Your task to perform on an android device: turn off priority inbox in the gmail app Image 0: 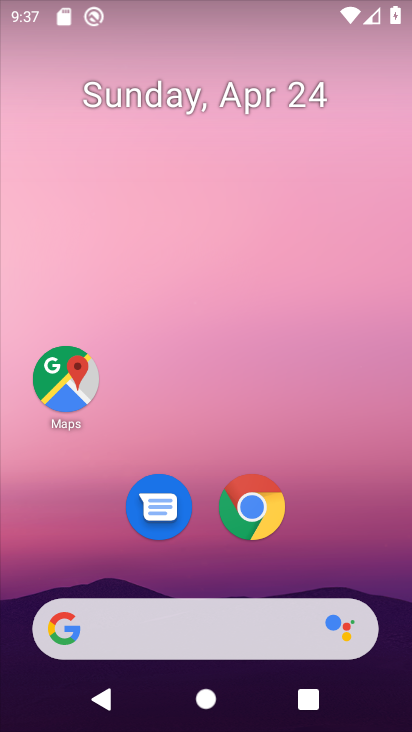
Step 0: drag from (147, 595) to (262, 57)
Your task to perform on an android device: turn off priority inbox in the gmail app Image 1: 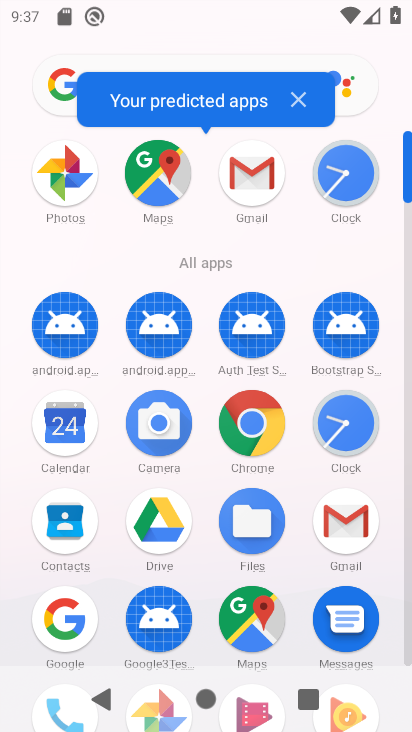
Step 1: click (247, 183)
Your task to perform on an android device: turn off priority inbox in the gmail app Image 2: 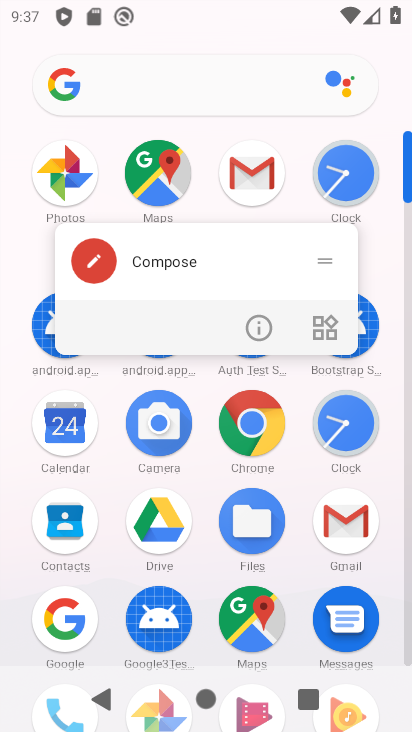
Step 2: click (272, 180)
Your task to perform on an android device: turn off priority inbox in the gmail app Image 3: 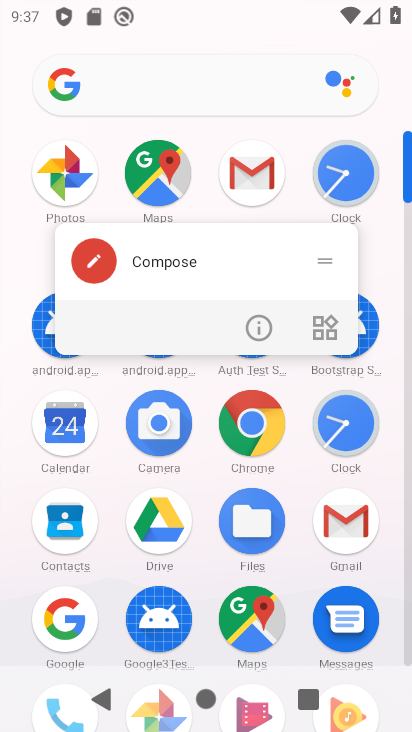
Step 3: click (272, 180)
Your task to perform on an android device: turn off priority inbox in the gmail app Image 4: 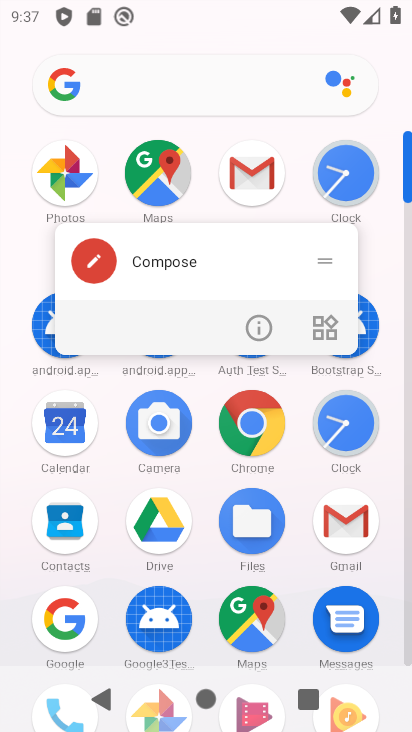
Step 4: click (272, 180)
Your task to perform on an android device: turn off priority inbox in the gmail app Image 5: 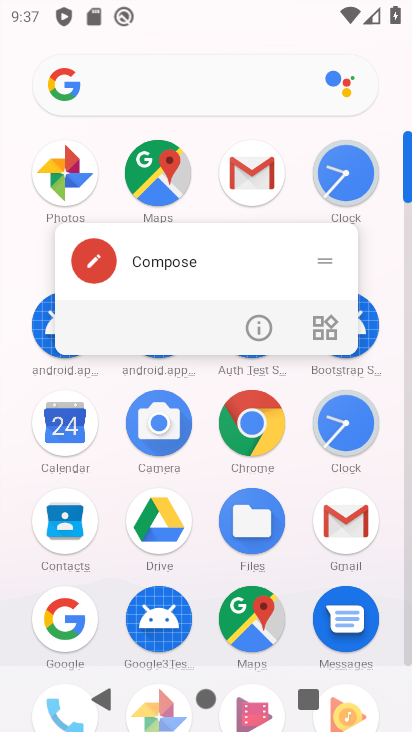
Step 5: click (258, 175)
Your task to perform on an android device: turn off priority inbox in the gmail app Image 6: 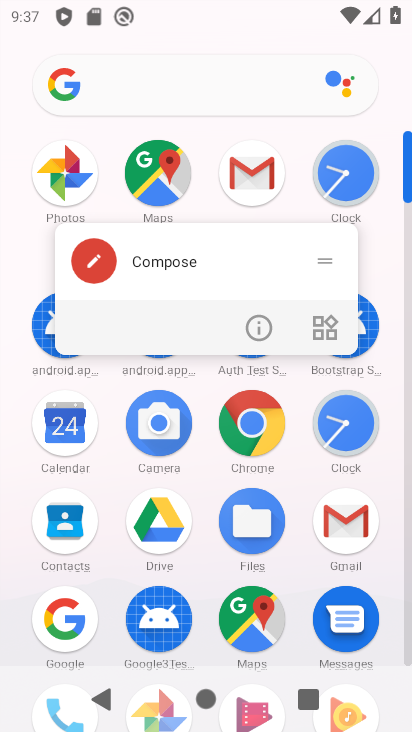
Step 6: click (258, 173)
Your task to perform on an android device: turn off priority inbox in the gmail app Image 7: 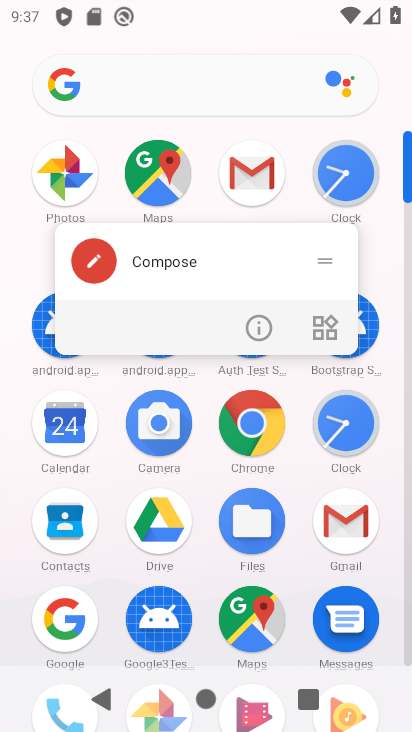
Step 7: click (254, 177)
Your task to perform on an android device: turn off priority inbox in the gmail app Image 8: 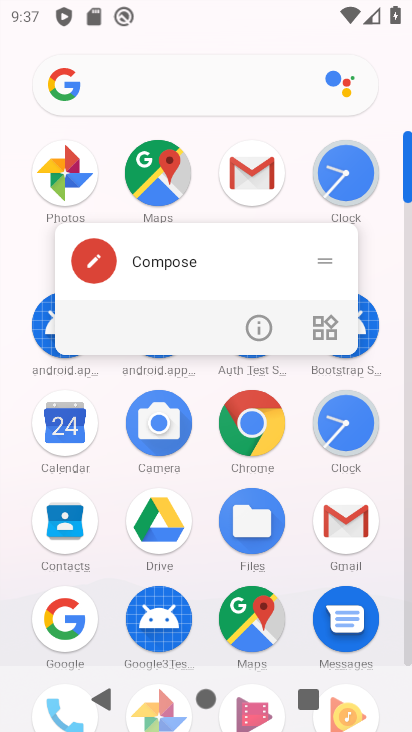
Step 8: click (255, 182)
Your task to perform on an android device: turn off priority inbox in the gmail app Image 9: 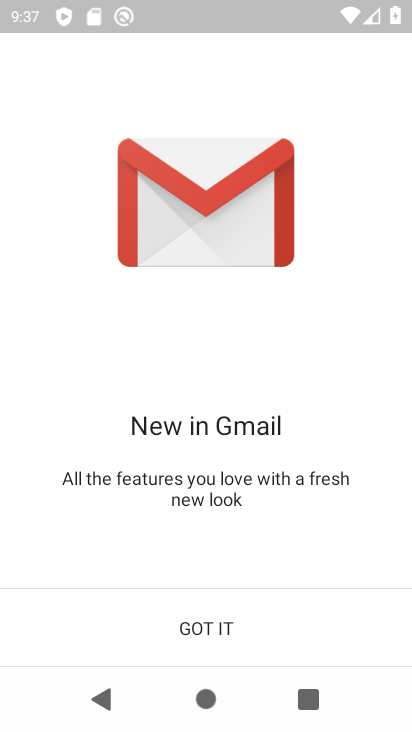
Step 9: click (238, 633)
Your task to perform on an android device: turn off priority inbox in the gmail app Image 10: 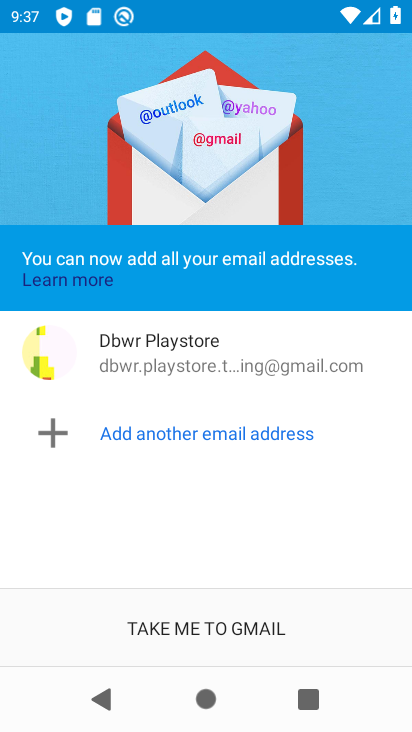
Step 10: click (237, 633)
Your task to perform on an android device: turn off priority inbox in the gmail app Image 11: 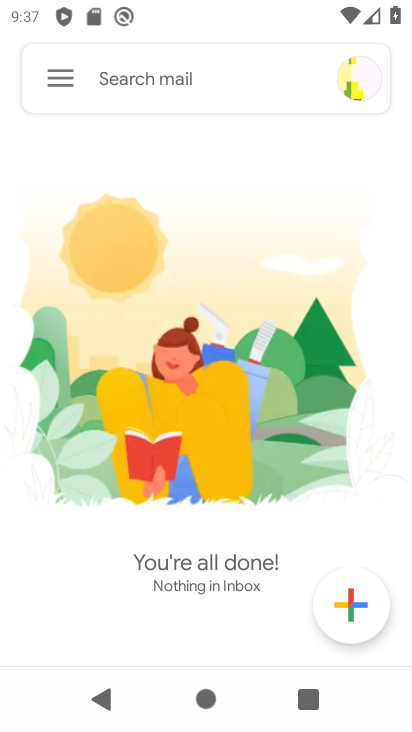
Step 11: click (80, 75)
Your task to perform on an android device: turn off priority inbox in the gmail app Image 12: 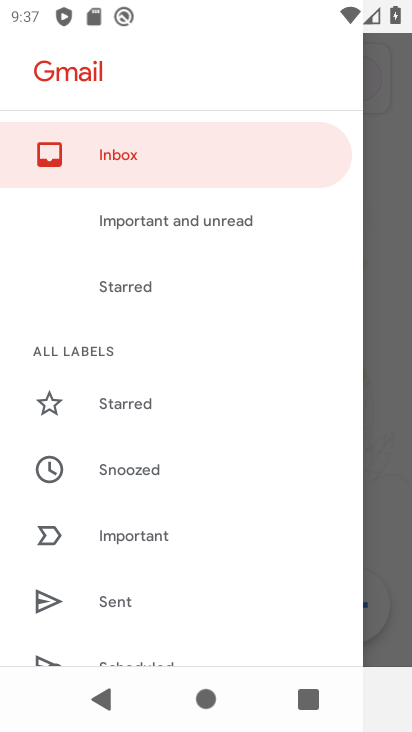
Step 12: drag from (112, 582) to (249, 114)
Your task to perform on an android device: turn off priority inbox in the gmail app Image 13: 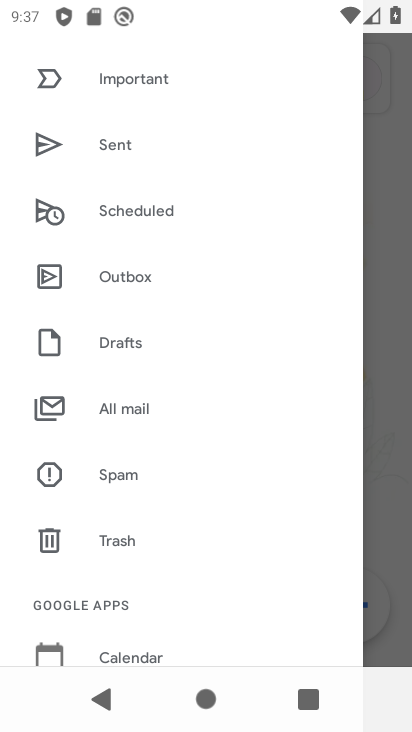
Step 13: drag from (142, 632) to (263, 198)
Your task to perform on an android device: turn off priority inbox in the gmail app Image 14: 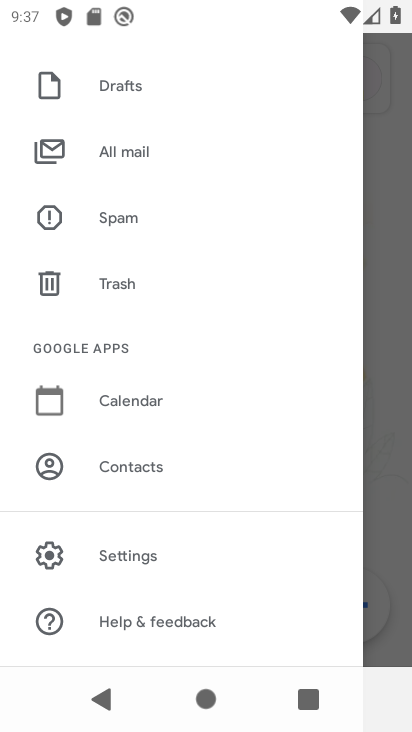
Step 14: click (147, 554)
Your task to perform on an android device: turn off priority inbox in the gmail app Image 15: 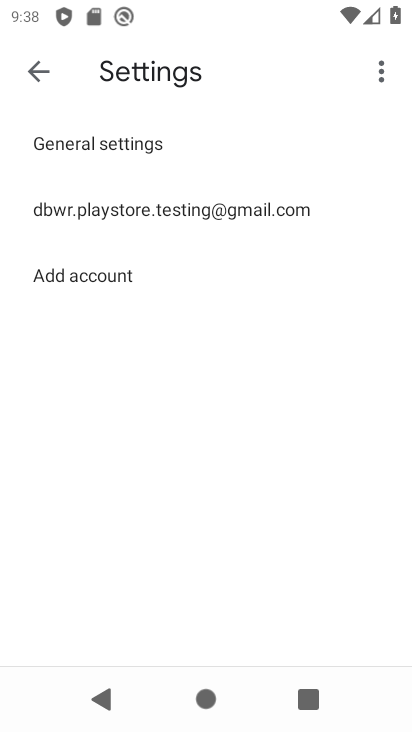
Step 15: click (197, 220)
Your task to perform on an android device: turn off priority inbox in the gmail app Image 16: 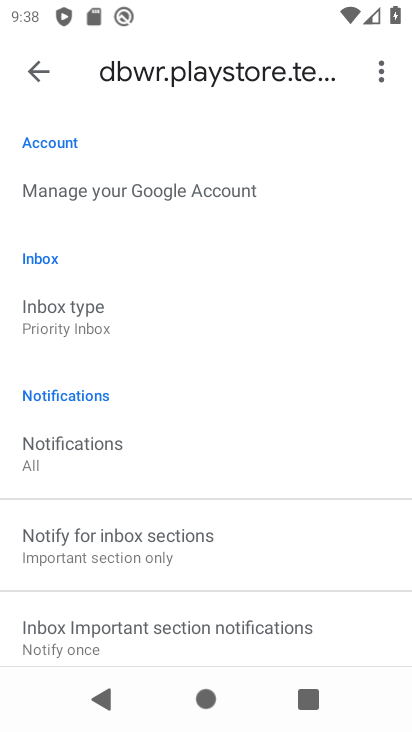
Step 16: click (122, 310)
Your task to perform on an android device: turn off priority inbox in the gmail app Image 17: 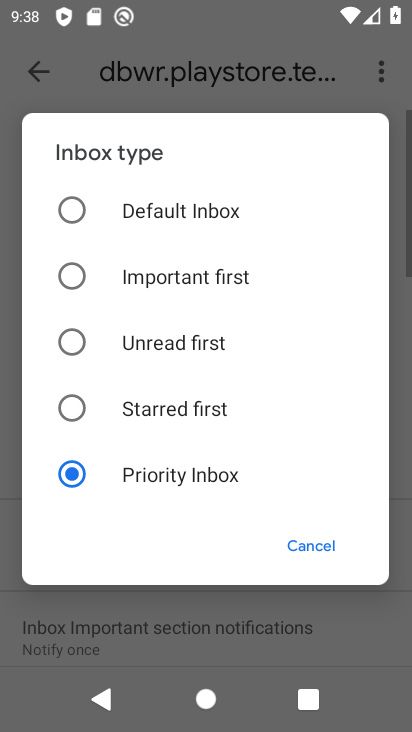
Step 17: click (173, 217)
Your task to perform on an android device: turn off priority inbox in the gmail app Image 18: 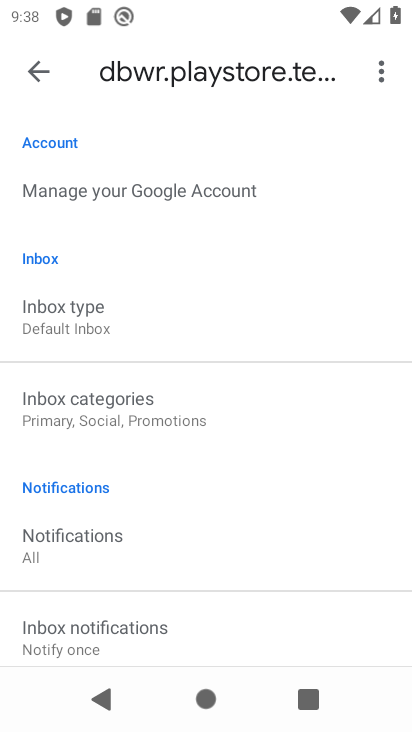
Step 18: task complete